Your task to perform on an android device: Show me popular games on the Play Store Image 0: 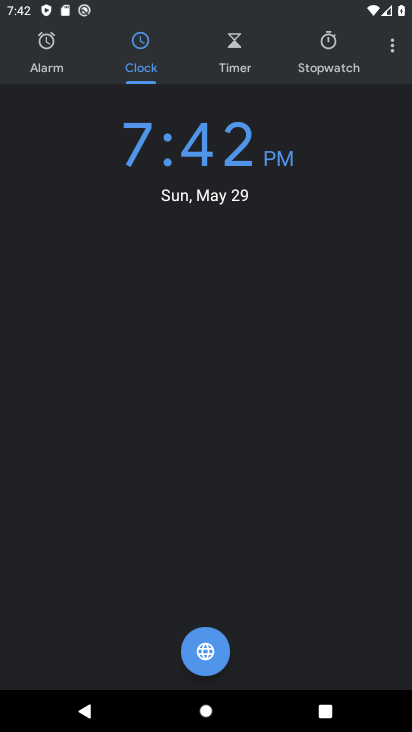
Step 0: press home button
Your task to perform on an android device: Show me popular games on the Play Store Image 1: 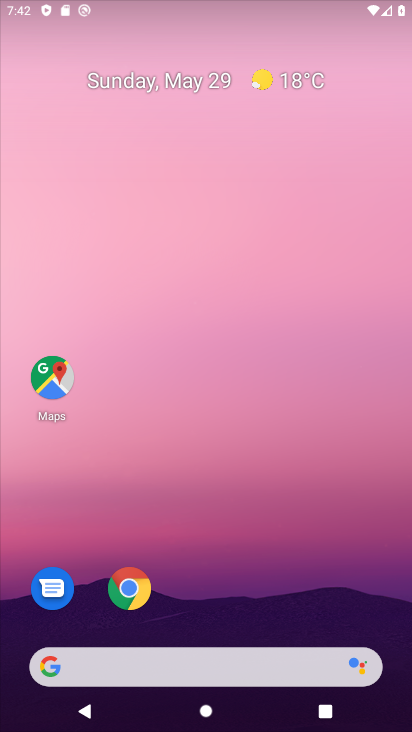
Step 1: drag from (202, 586) to (217, 124)
Your task to perform on an android device: Show me popular games on the Play Store Image 2: 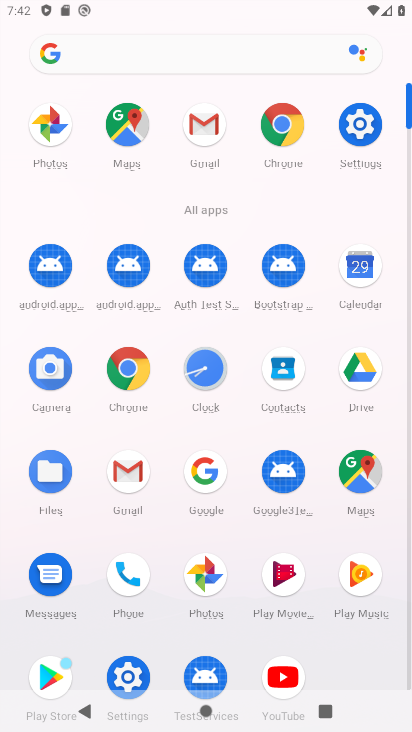
Step 2: click (49, 671)
Your task to perform on an android device: Show me popular games on the Play Store Image 3: 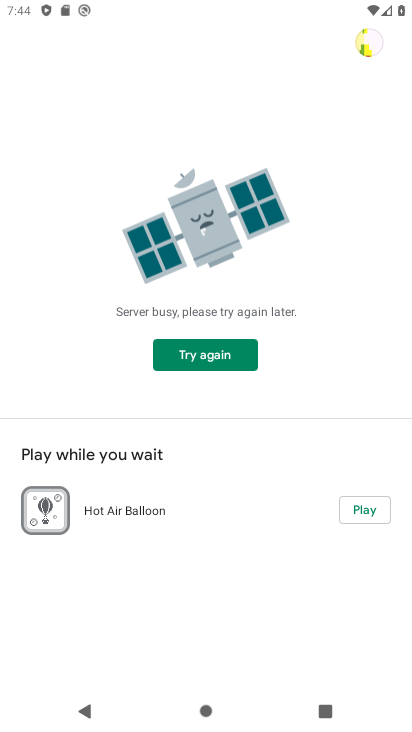
Step 3: task complete